Your task to perform on an android device: Go to Google Image 0: 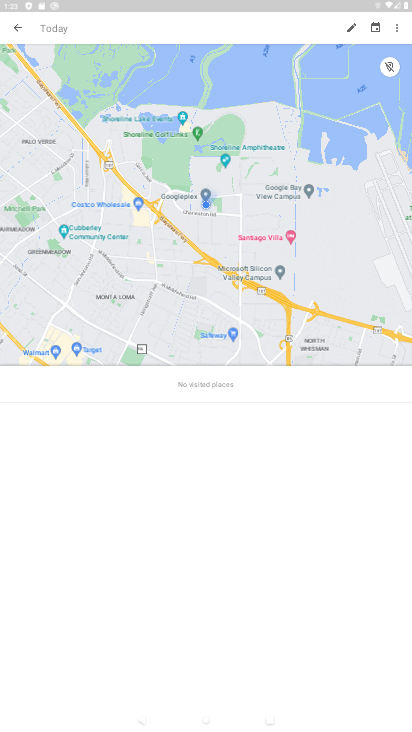
Step 0: press home button
Your task to perform on an android device: Go to Google Image 1: 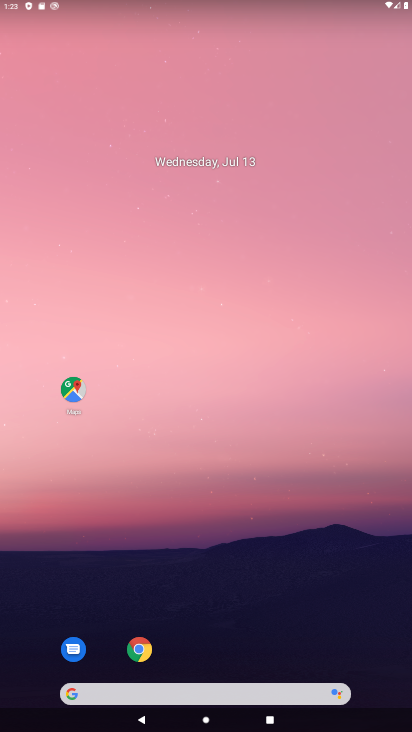
Step 1: drag from (173, 658) to (184, 197)
Your task to perform on an android device: Go to Google Image 2: 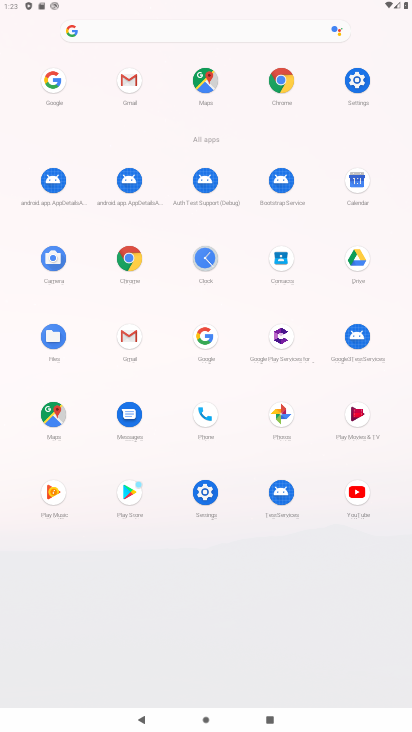
Step 2: click (204, 342)
Your task to perform on an android device: Go to Google Image 3: 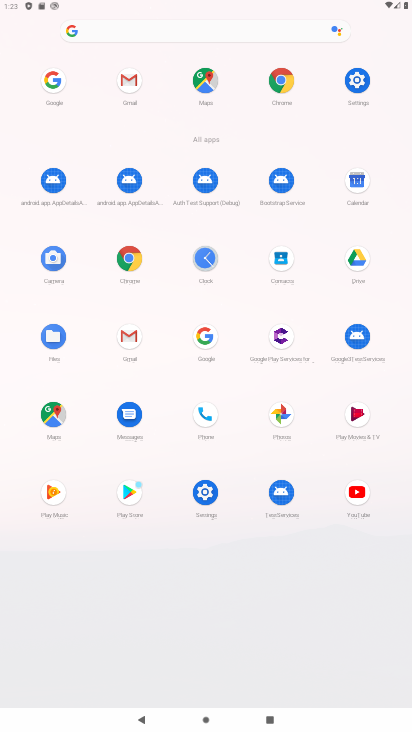
Step 3: click (206, 347)
Your task to perform on an android device: Go to Google Image 4: 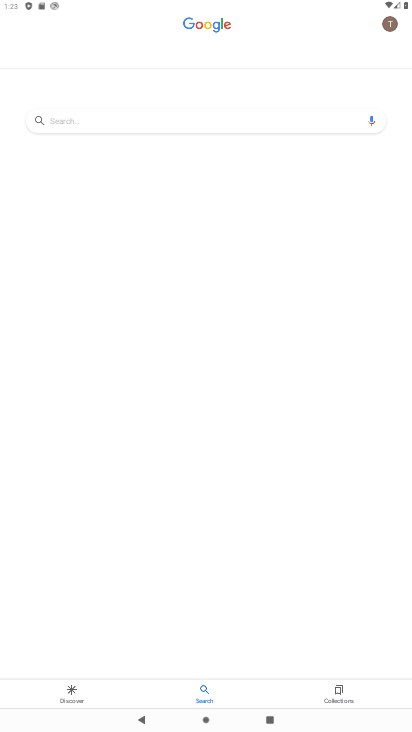
Step 4: task complete